Your task to perform on an android device: open a new tab in the chrome app Image 0: 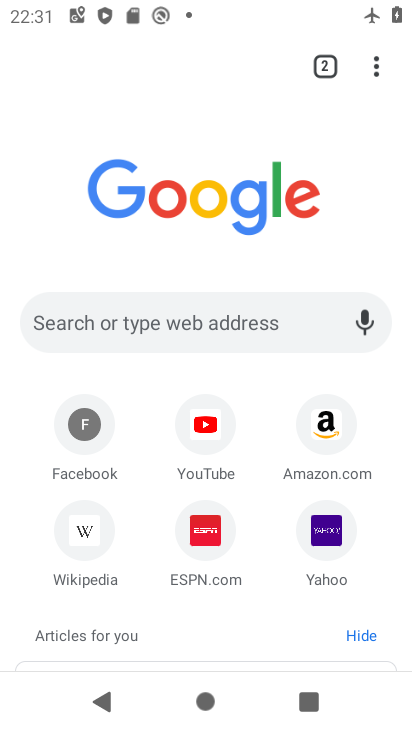
Step 0: click (376, 72)
Your task to perform on an android device: open a new tab in the chrome app Image 1: 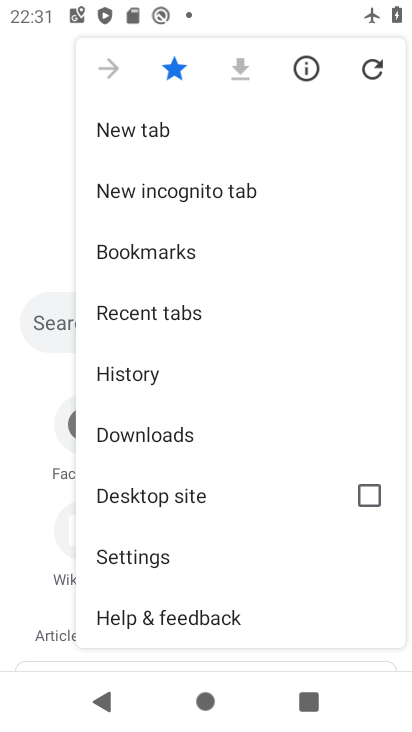
Step 1: click (245, 128)
Your task to perform on an android device: open a new tab in the chrome app Image 2: 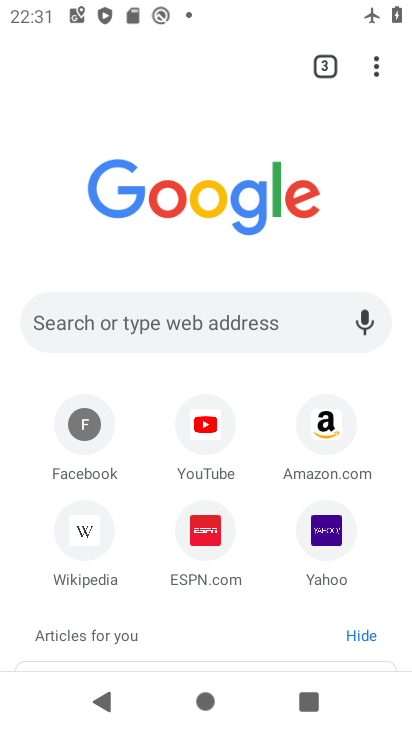
Step 2: task complete